Your task to perform on an android device: add a contact Image 0: 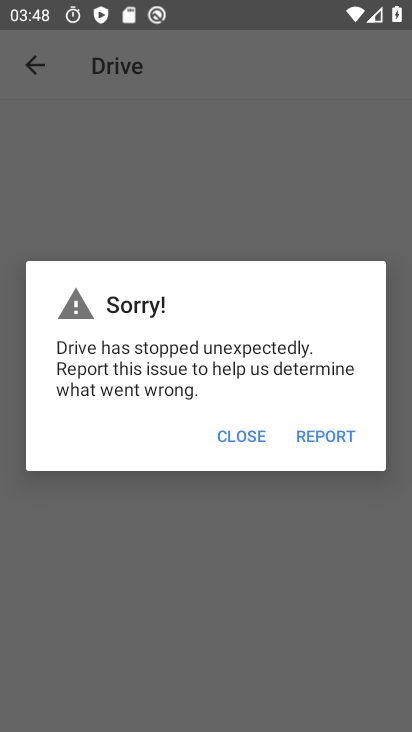
Step 0: click (251, 591)
Your task to perform on an android device: add a contact Image 1: 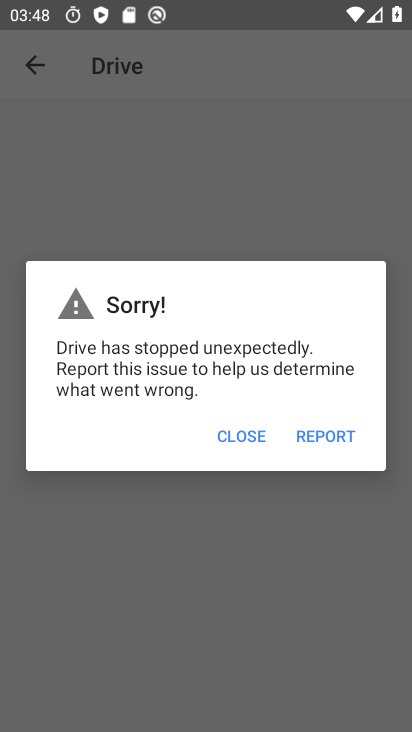
Step 1: press home button
Your task to perform on an android device: add a contact Image 2: 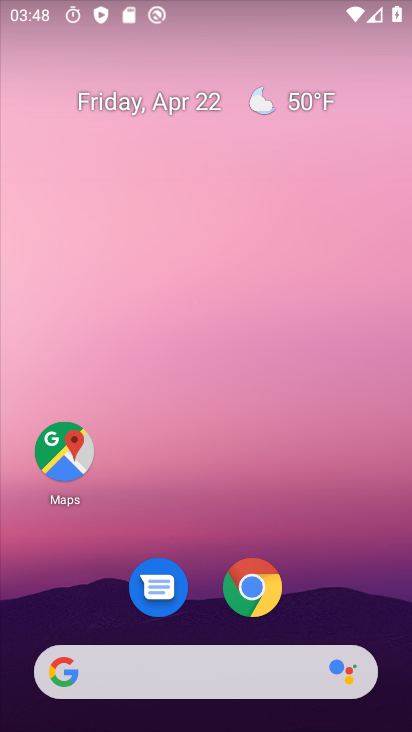
Step 2: drag from (326, 466) to (263, 12)
Your task to perform on an android device: add a contact Image 3: 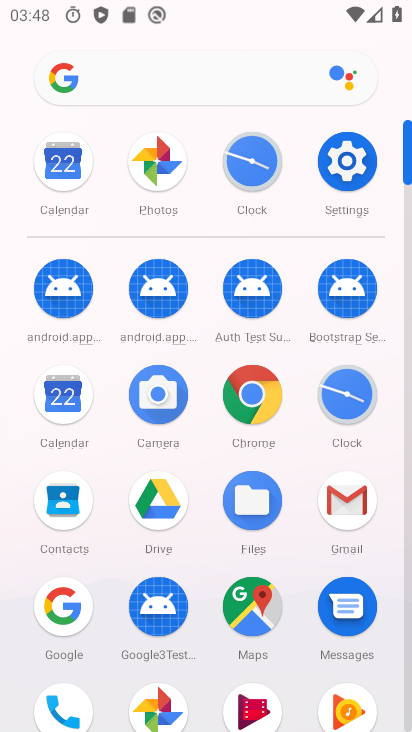
Step 3: click (66, 508)
Your task to perform on an android device: add a contact Image 4: 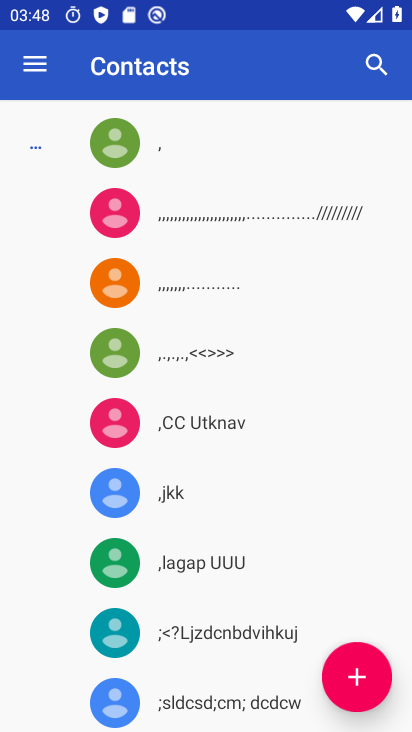
Step 4: click (355, 673)
Your task to perform on an android device: add a contact Image 5: 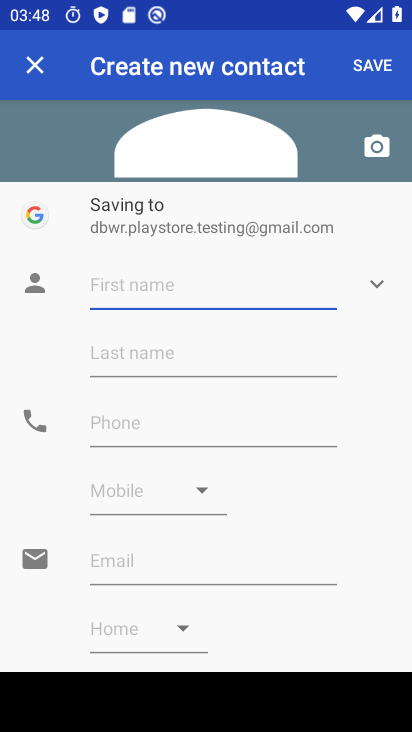
Step 5: click (165, 292)
Your task to perform on an android device: add a contact Image 6: 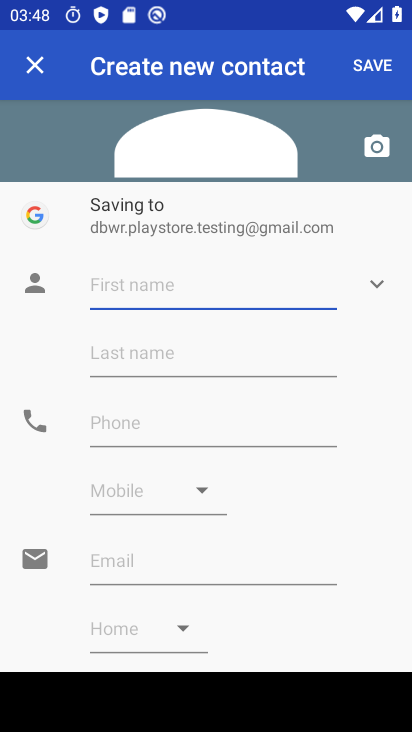
Step 6: type "k.k"
Your task to perform on an android device: add a contact Image 7: 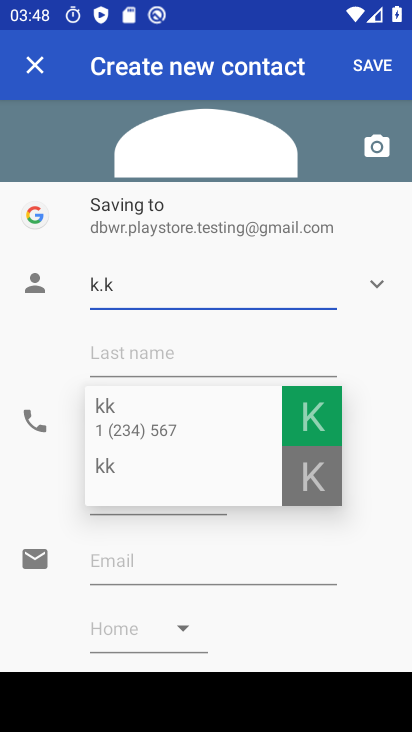
Step 7: click (368, 438)
Your task to perform on an android device: add a contact Image 8: 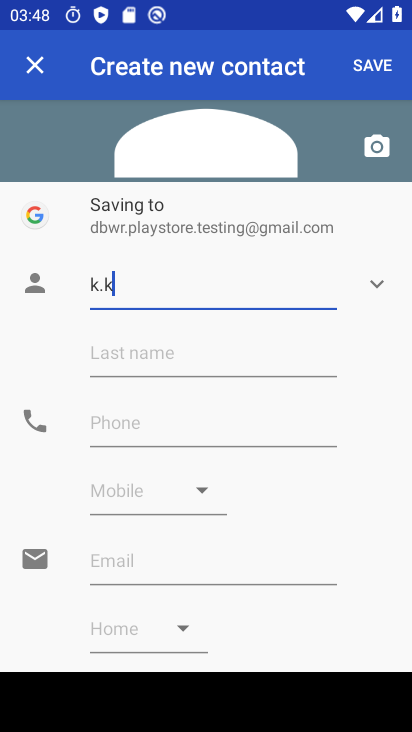
Step 8: click (207, 401)
Your task to perform on an android device: add a contact Image 9: 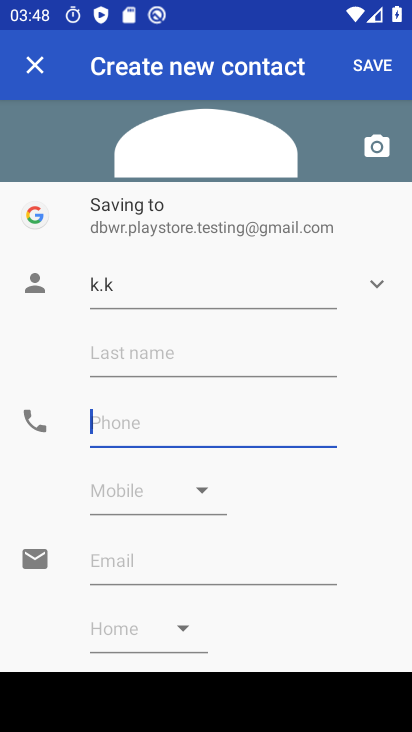
Step 9: type "98765433"
Your task to perform on an android device: add a contact Image 10: 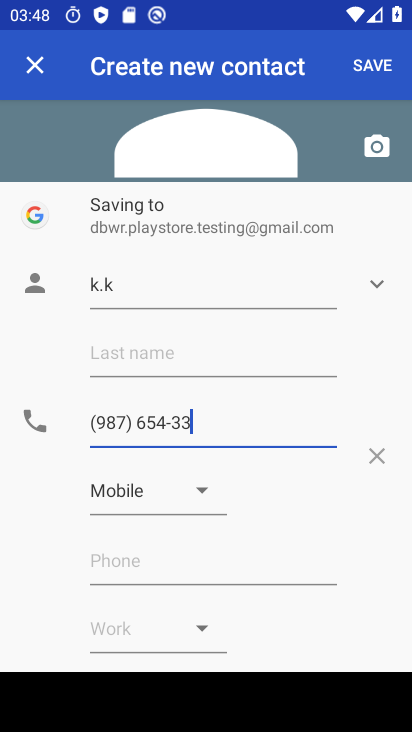
Step 10: click (369, 71)
Your task to perform on an android device: add a contact Image 11: 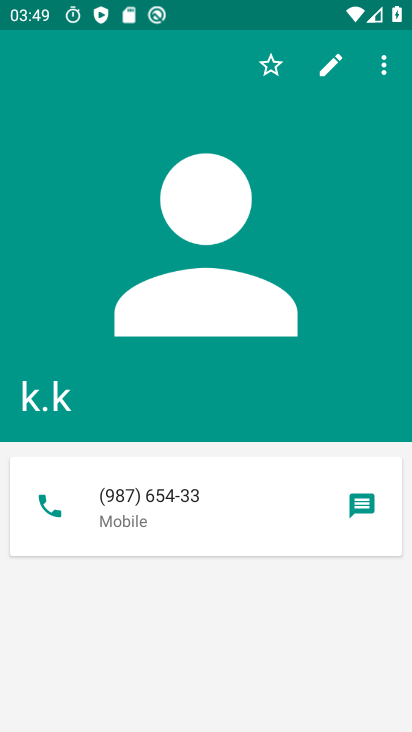
Step 11: task complete